Your task to perform on an android device: delete browsing data in the chrome app Image 0: 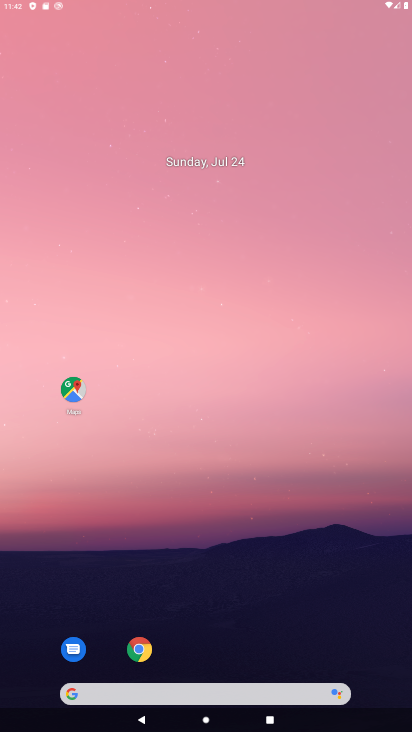
Step 0: drag from (250, 571) to (214, 321)
Your task to perform on an android device: delete browsing data in the chrome app Image 1: 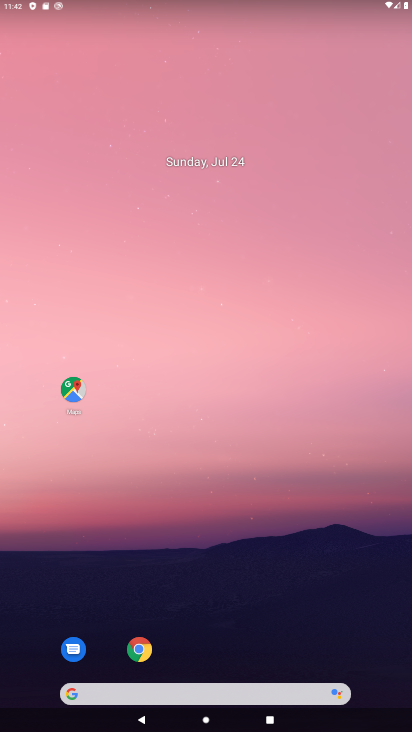
Step 1: drag from (220, 560) to (203, 210)
Your task to perform on an android device: delete browsing data in the chrome app Image 2: 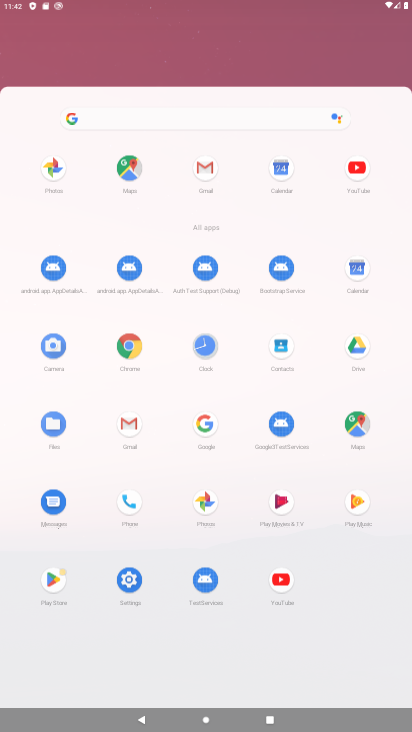
Step 2: click (208, 254)
Your task to perform on an android device: delete browsing data in the chrome app Image 3: 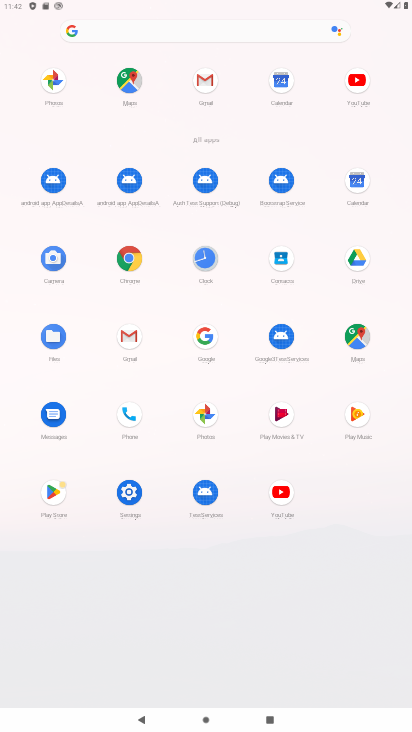
Step 3: drag from (316, 518) to (302, 138)
Your task to perform on an android device: delete browsing data in the chrome app Image 4: 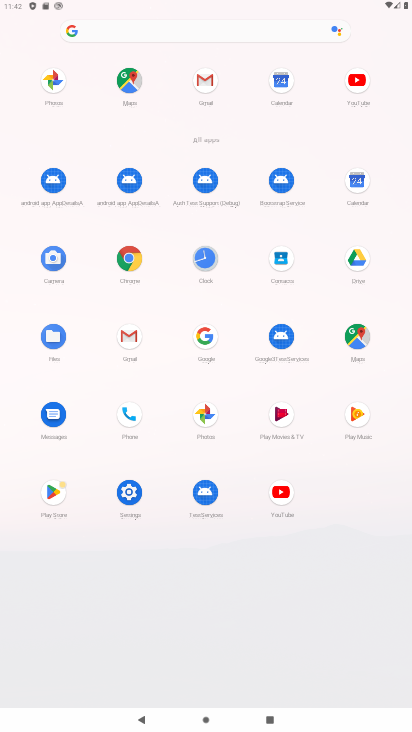
Step 4: click (134, 256)
Your task to perform on an android device: delete browsing data in the chrome app Image 5: 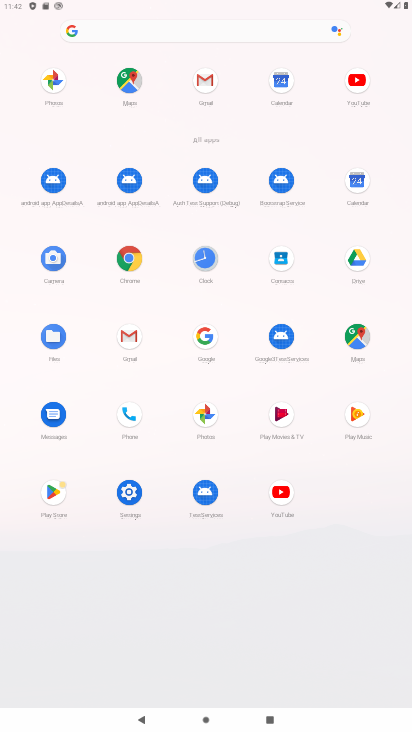
Step 5: click (134, 260)
Your task to perform on an android device: delete browsing data in the chrome app Image 6: 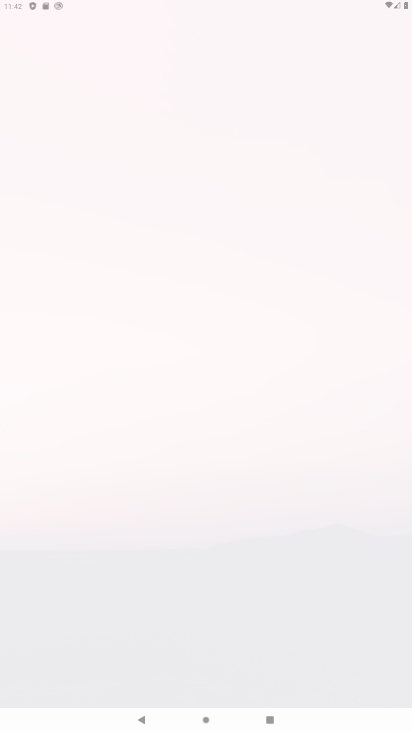
Step 6: click (137, 266)
Your task to perform on an android device: delete browsing data in the chrome app Image 7: 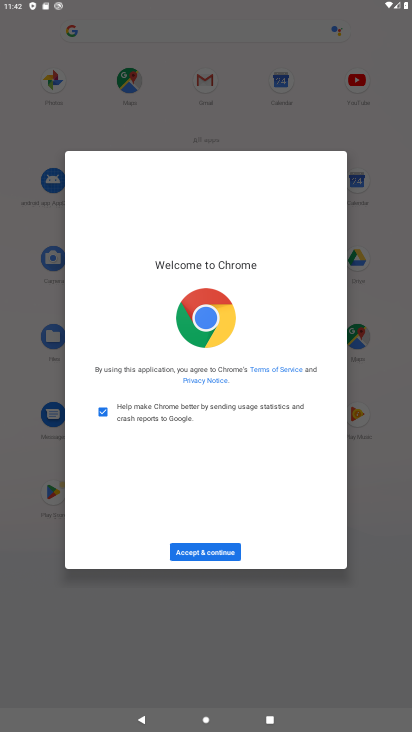
Step 7: click (187, 544)
Your task to perform on an android device: delete browsing data in the chrome app Image 8: 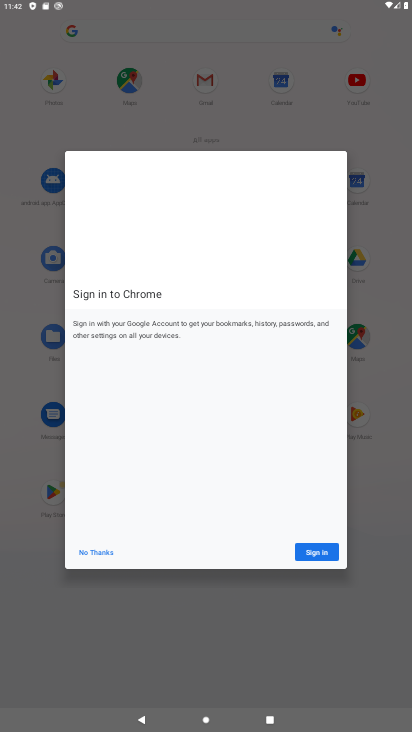
Step 8: click (90, 559)
Your task to perform on an android device: delete browsing data in the chrome app Image 9: 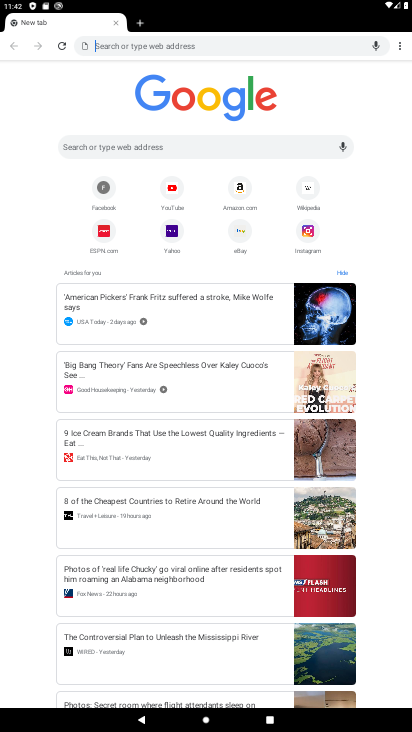
Step 9: click (407, 39)
Your task to perform on an android device: delete browsing data in the chrome app Image 10: 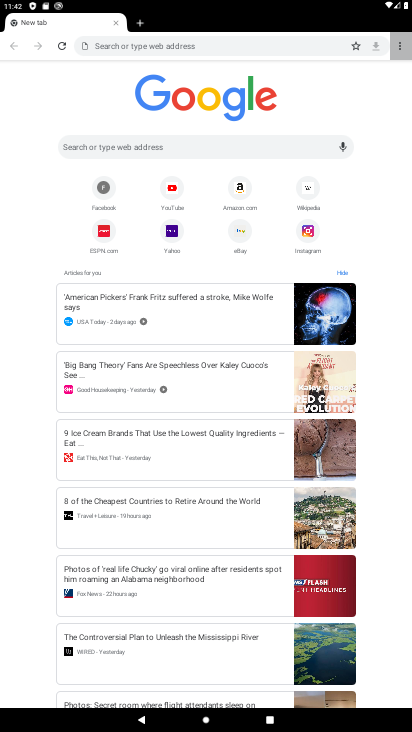
Step 10: click (406, 41)
Your task to perform on an android device: delete browsing data in the chrome app Image 11: 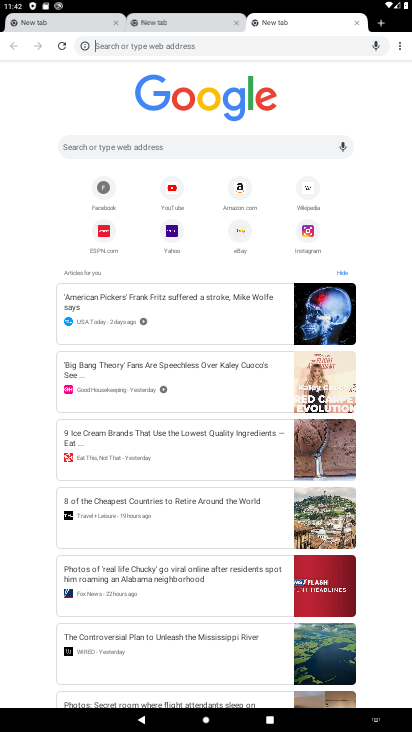
Step 11: click (400, 46)
Your task to perform on an android device: delete browsing data in the chrome app Image 12: 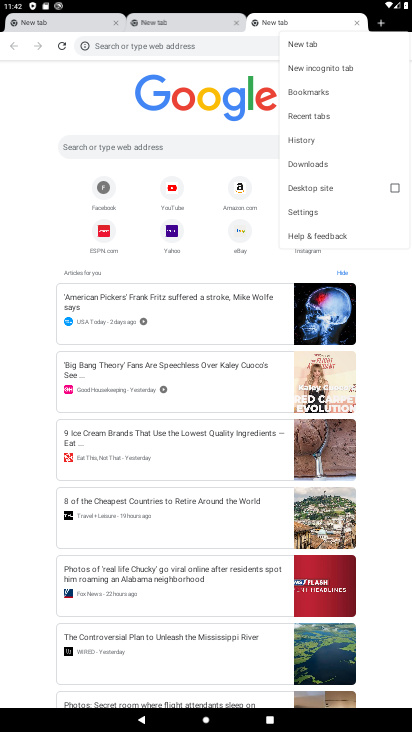
Step 12: click (306, 108)
Your task to perform on an android device: delete browsing data in the chrome app Image 13: 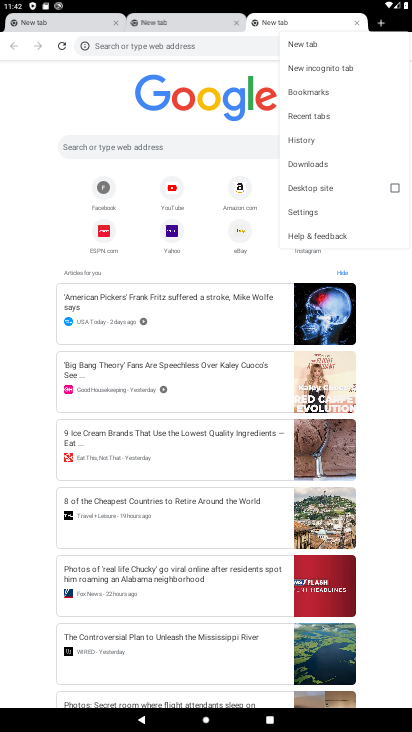
Step 13: click (307, 111)
Your task to perform on an android device: delete browsing data in the chrome app Image 14: 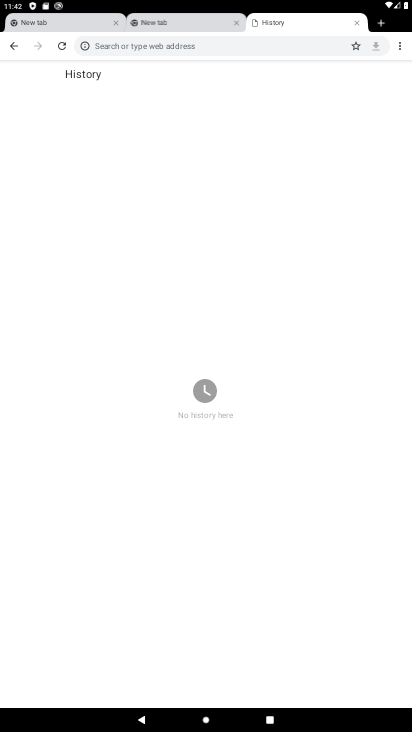
Step 14: task complete